Your task to perform on an android device: toggle location history Image 0: 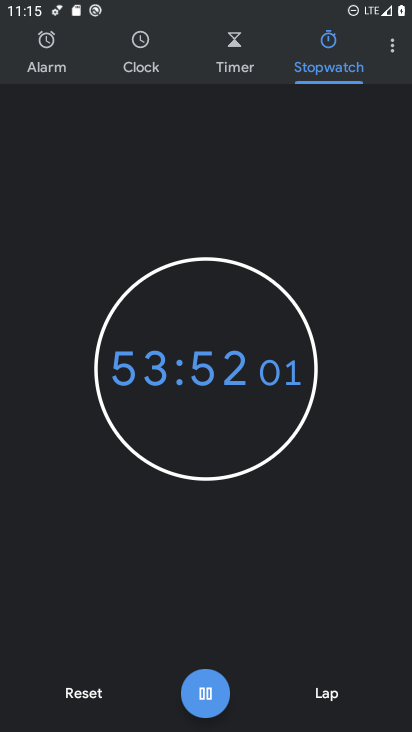
Step 0: press home button
Your task to perform on an android device: toggle location history Image 1: 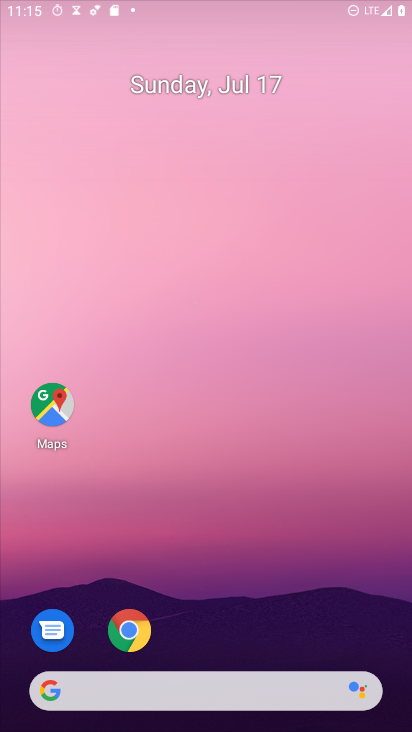
Step 1: drag from (129, 637) to (112, 51)
Your task to perform on an android device: toggle location history Image 2: 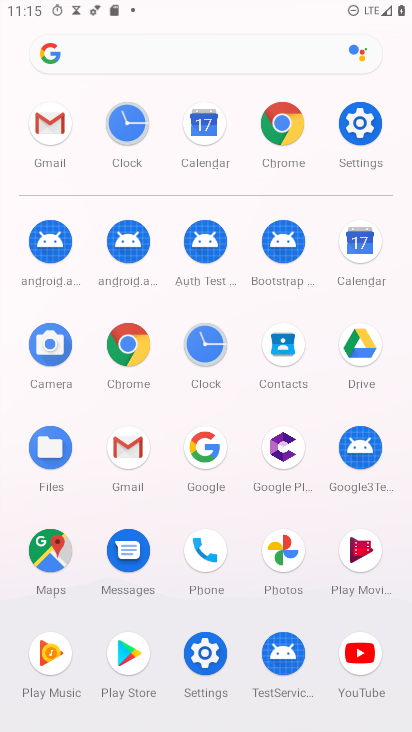
Step 2: click (376, 106)
Your task to perform on an android device: toggle location history Image 3: 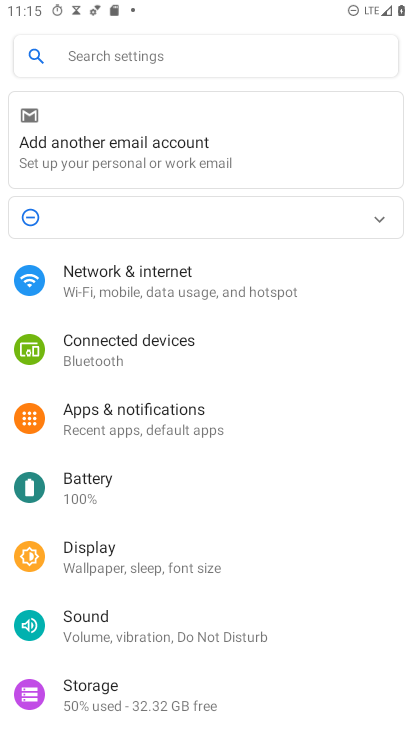
Step 3: drag from (81, 663) to (105, 169)
Your task to perform on an android device: toggle location history Image 4: 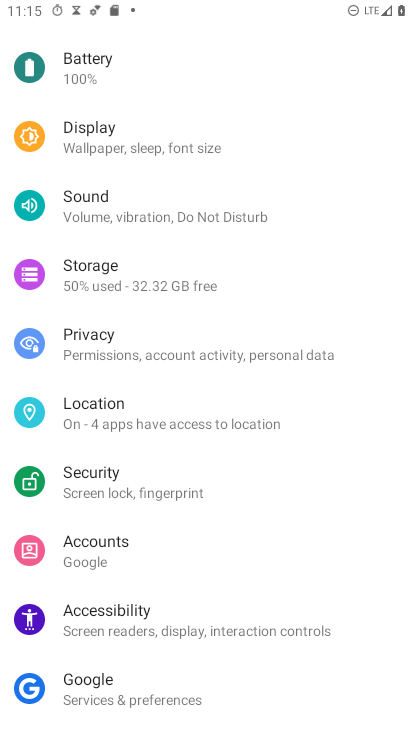
Step 4: click (169, 411)
Your task to perform on an android device: toggle location history Image 5: 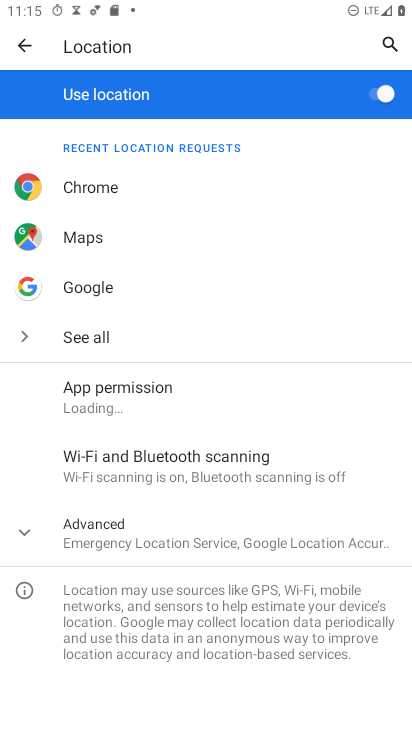
Step 5: click (135, 543)
Your task to perform on an android device: toggle location history Image 6: 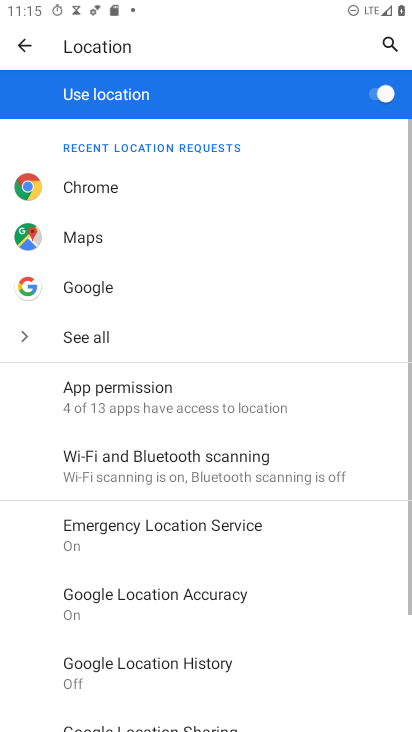
Step 6: drag from (175, 637) to (131, 346)
Your task to perform on an android device: toggle location history Image 7: 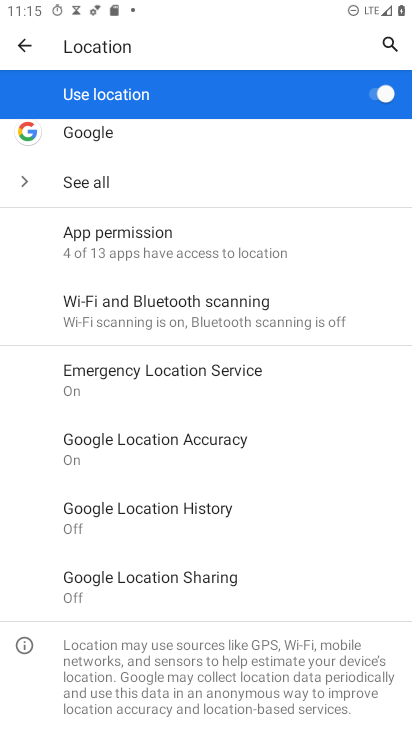
Step 7: click (128, 523)
Your task to perform on an android device: toggle location history Image 8: 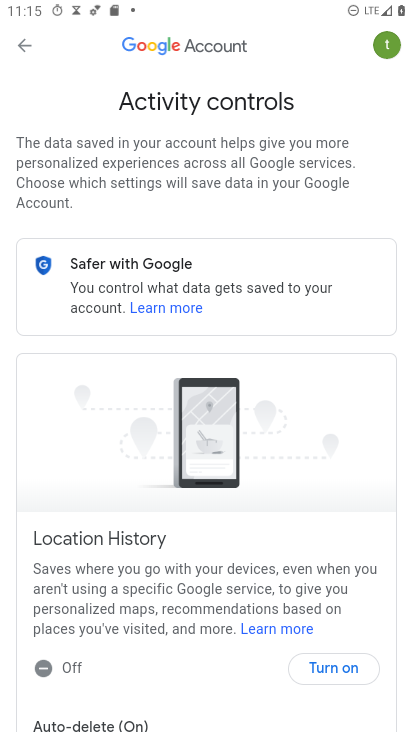
Step 8: click (324, 665)
Your task to perform on an android device: toggle location history Image 9: 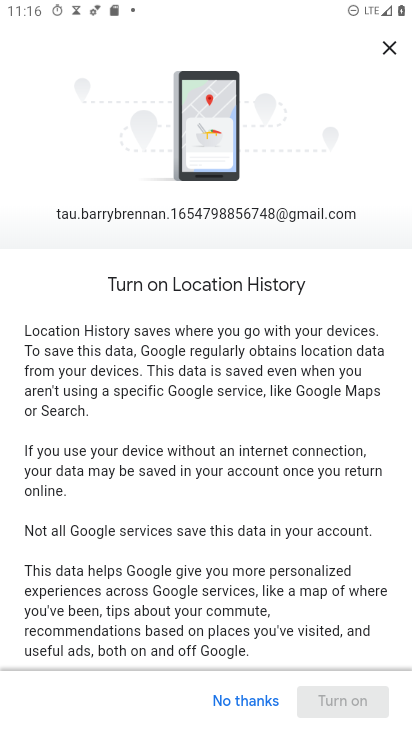
Step 9: drag from (274, 632) to (161, 25)
Your task to perform on an android device: toggle location history Image 10: 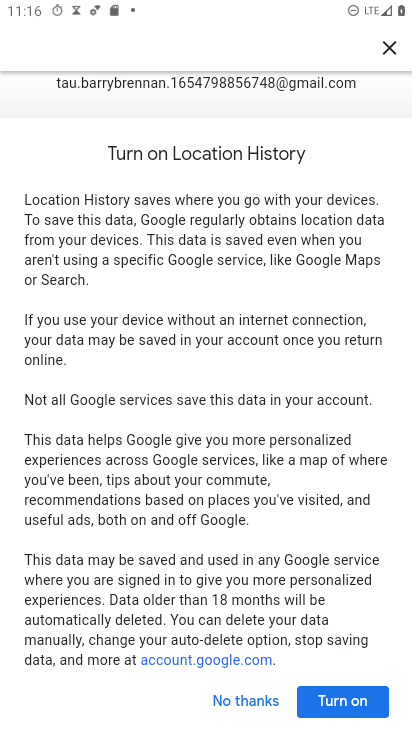
Step 10: click (318, 712)
Your task to perform on an android device: toggle location history Image 11: 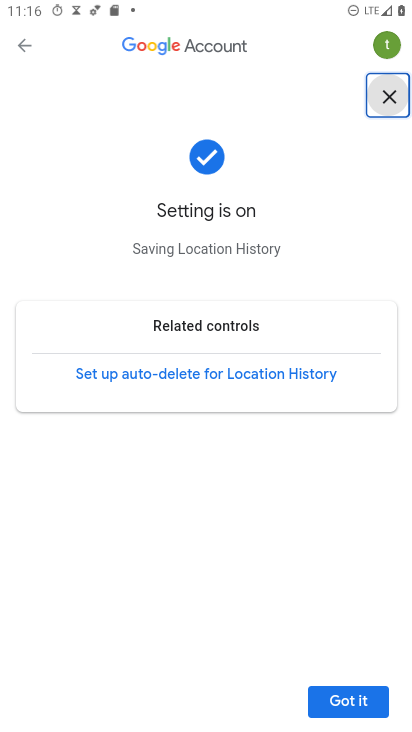
Step 11: task complete